Your task to perform on an android device: Go to accessibility settings Image 0: 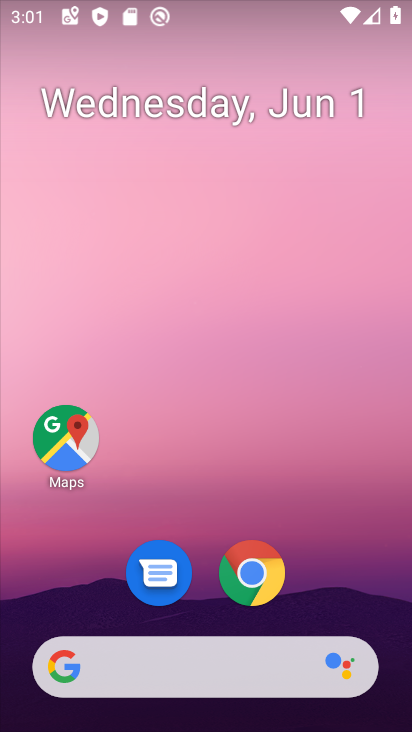
Step 0: drag from (169, 715) to (140, 60)
Your task to perform on an android device: Go to accessibility settings Image 1: 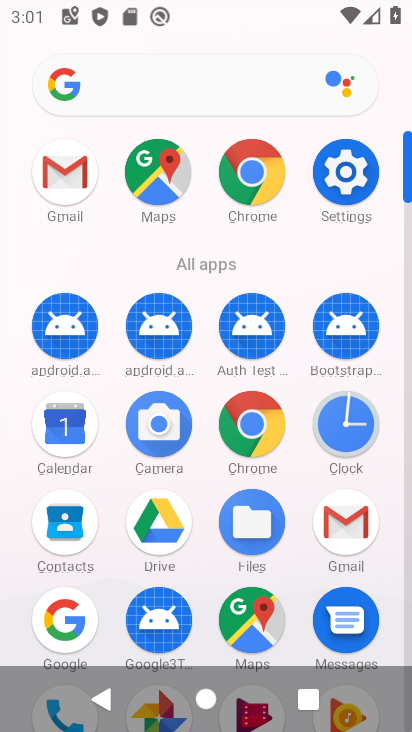
Step 1: click (345, 184)
Your task to perform on an android device: Go to accessibility settings Image 2: 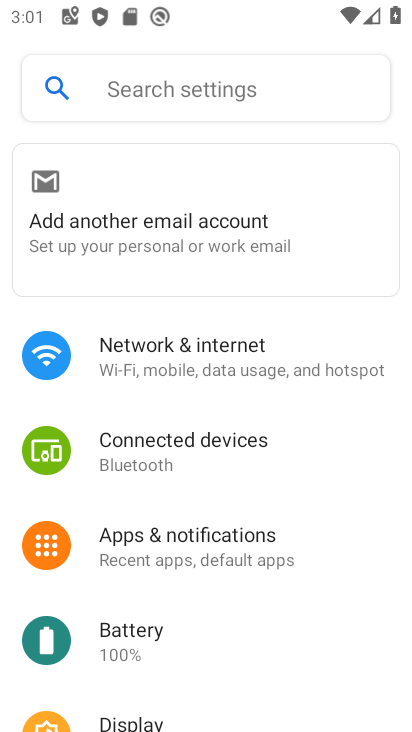
Step 2: drag from (227, 685) to (186, 131)
Your task to perform on an android device: Go to accessibility settings Image 3: 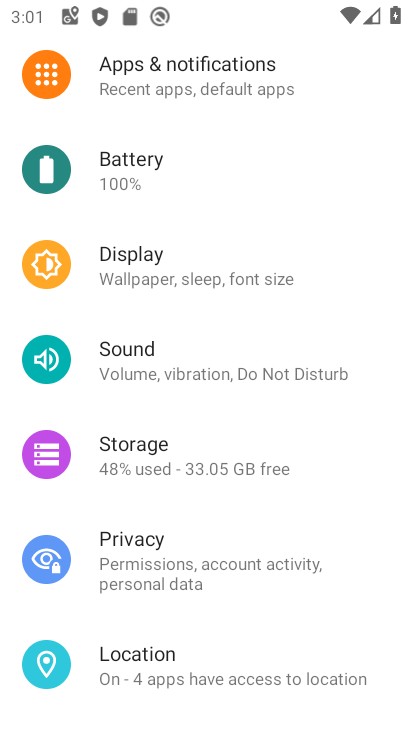
Step 3: drag from (203, 639) to (223, 177)
Your task to perform on an android device: Go to accessibility settings Image 4: 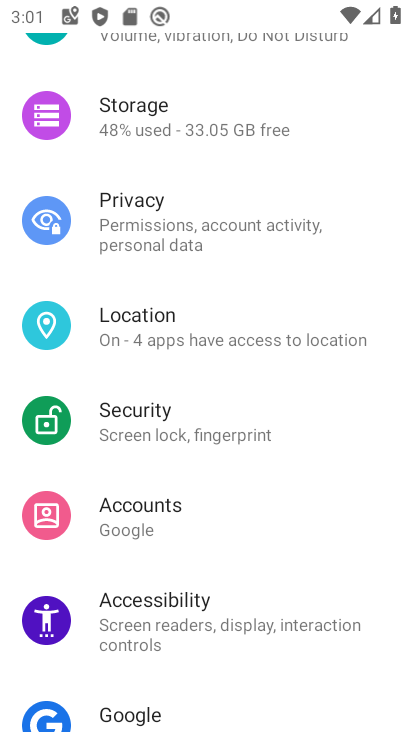
Step 4: click (171, 634)
Your task to perform on an android device: Go to accessibility settings Image 5: 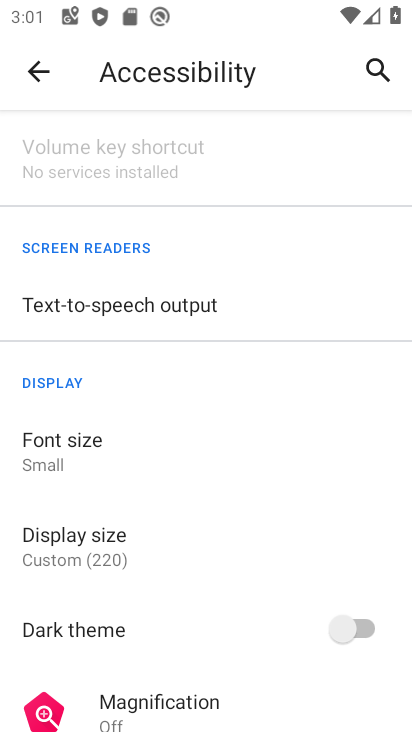
Step 5: task complete